Your task to perform on an android device: show emergency info Image 0: 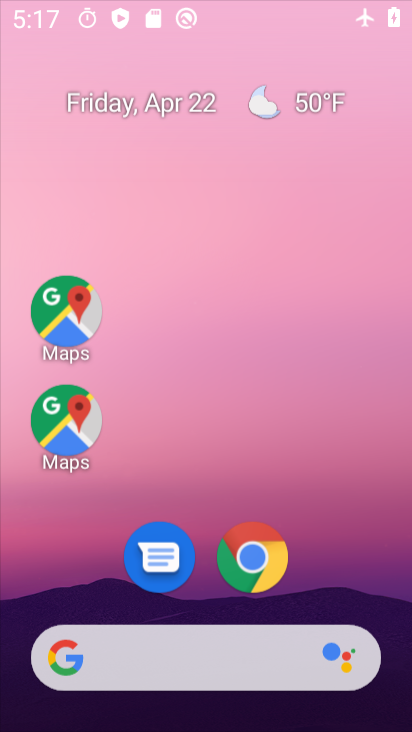
Step 0: click (256, 106)
Your task to perform on an android device: show emergency info Image 1: 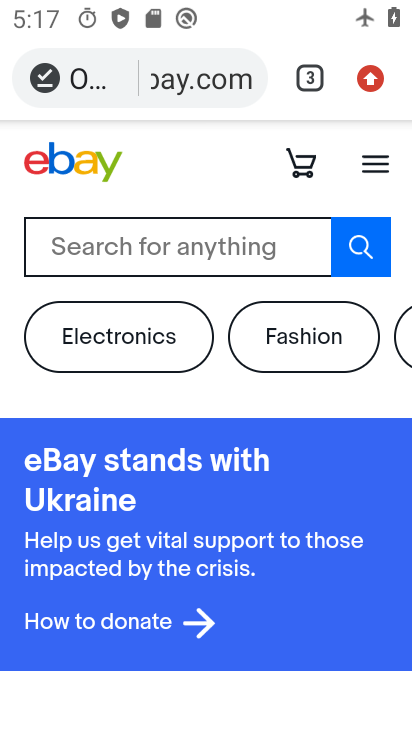
Step 1: press home button
Your task to perform on an android device: show emergency info Image 2: 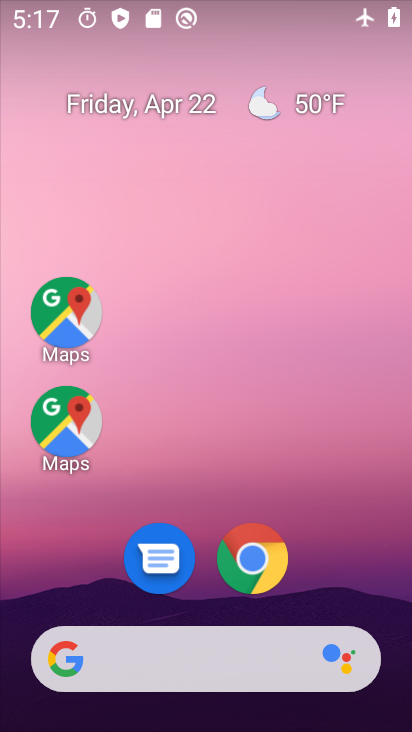
Step 2: drag from (329, 583) to (229, 154)
Your task to perform on an android device: show emergency info Image 3: 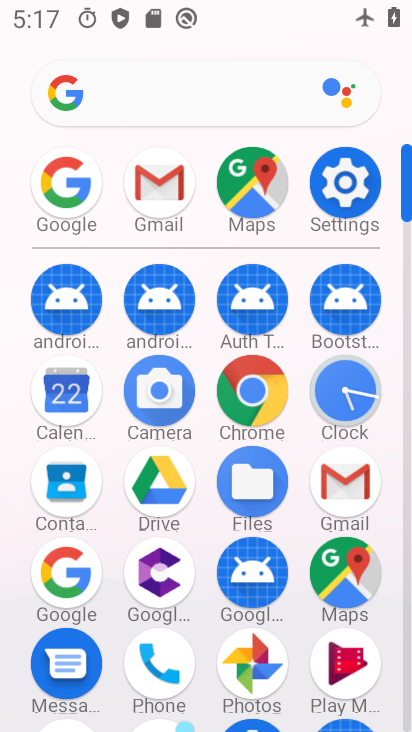
Step 3: click (363, 188)
Your task to perform on an android device: show emergency info Image 4: 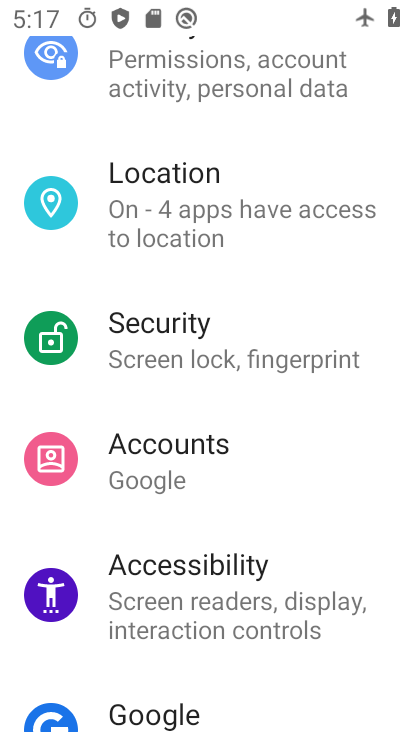
Step 4: drag from (241, 619) to (269, 121)
Your task to perform on an android device: show emergency info Image 5: 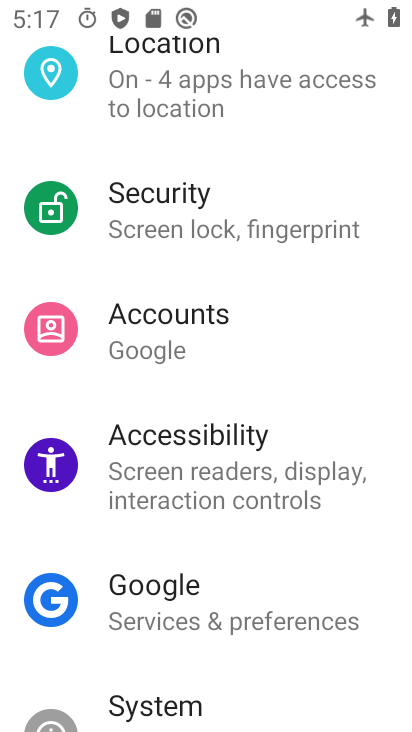
Step 5: drag from (212, 590) to (229, 86)
Your task to perform on an android device: show emergency info Image 6: 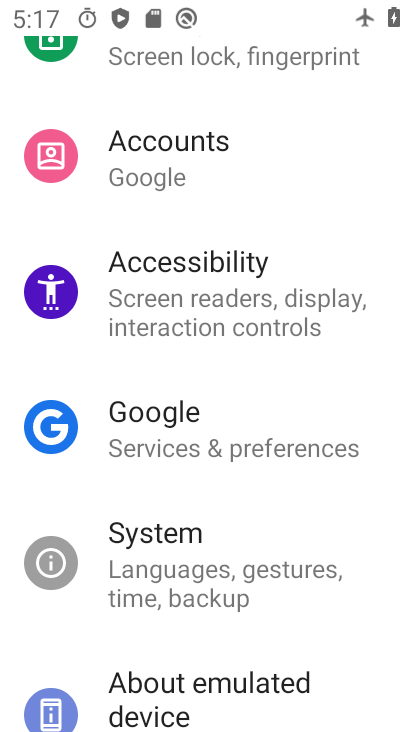
Step 6: click (171, 720)
Your task to perform on an android device: show emergency info Image 7: 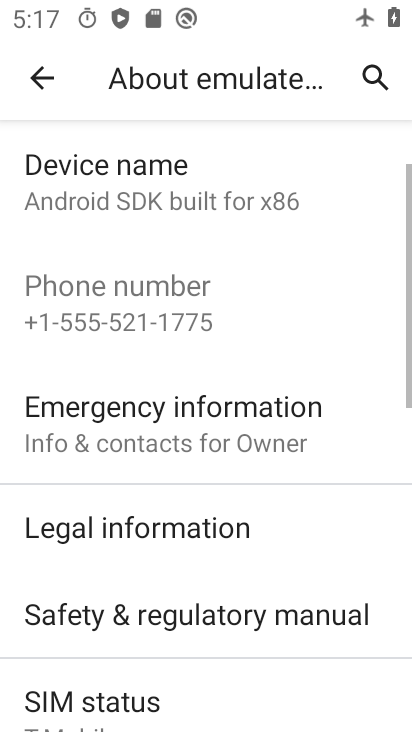
Step 7: task complete